Your task to perform on an android device: open app "Upside-Cash back on gas & food" (install if not already installed) and enter user name: "transatlantic@gmail.com" and password: "experiences" Image 0: 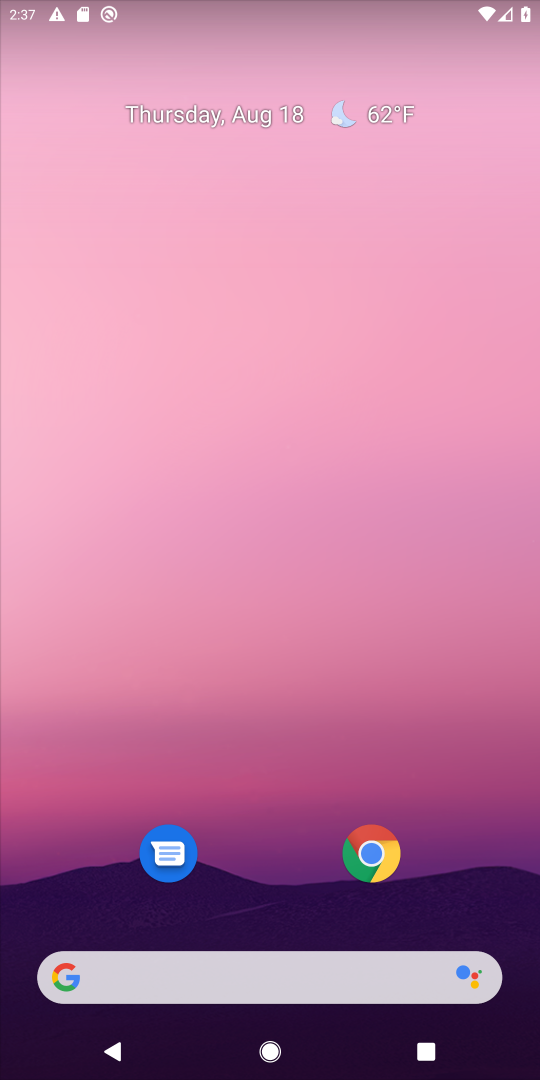
Step 0: drag from (456, 897) to (374, 71)
Your task to perform on an android device: open app "Upside-Cash back on gas & food" (install if not already installed) and enter user name: "transatlantic@gmail.com" and password: "experiences" Image 1: 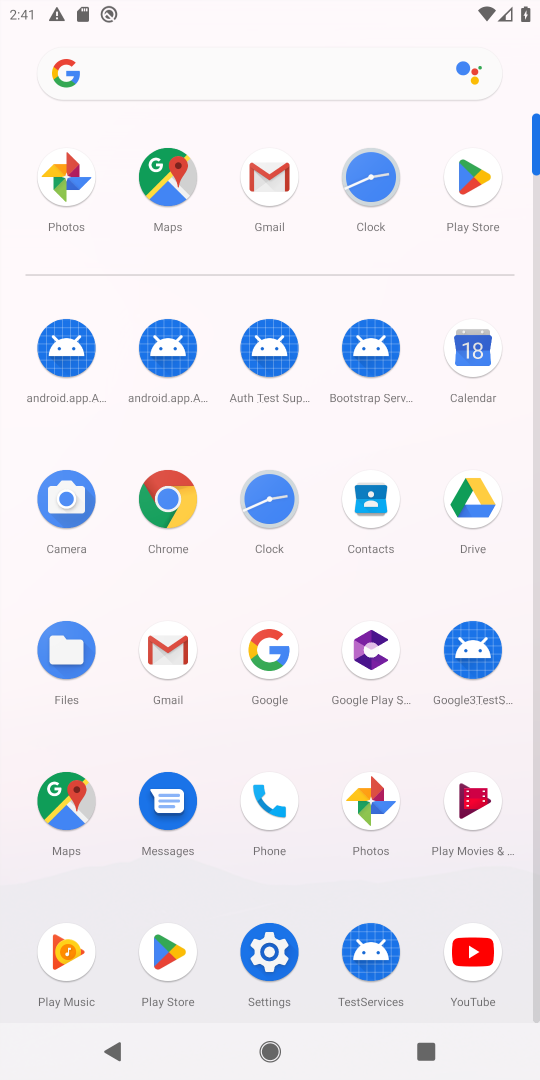
Step 1: click (473, 172)
Your task to perform on an android device: open app "Upside-Cash back on gas & food" (install if not already installed) and enter user name: "transatlantic@gmail.com" and password: "experiences" Image 2: 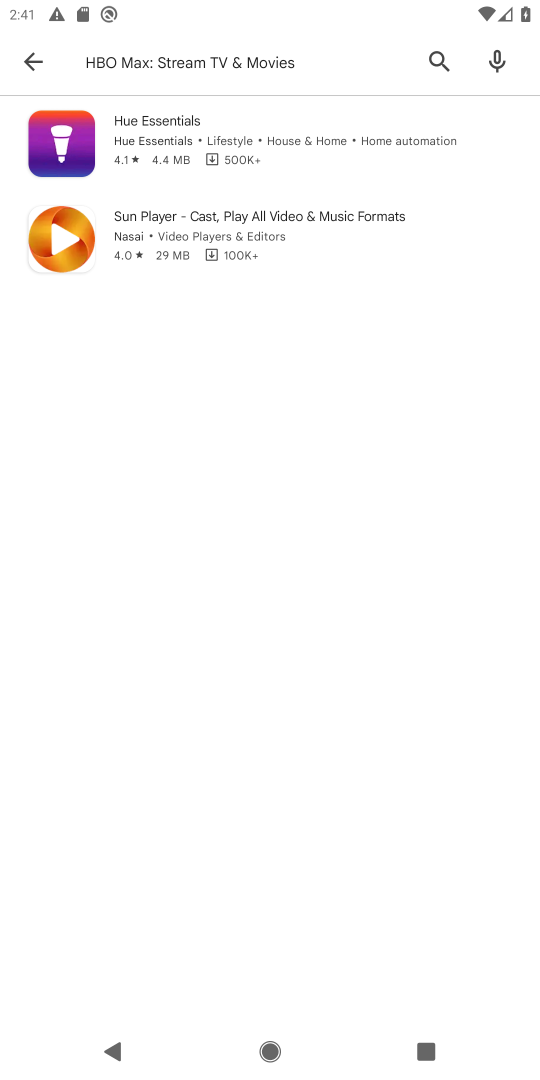
Step 2: press back button
Your task to perform on an android device: open app "Upside-Cash back on gas & food" (install if not already installed) and enter user name: "transatlantic@gmail.com" and password: "experiences" Image 3: 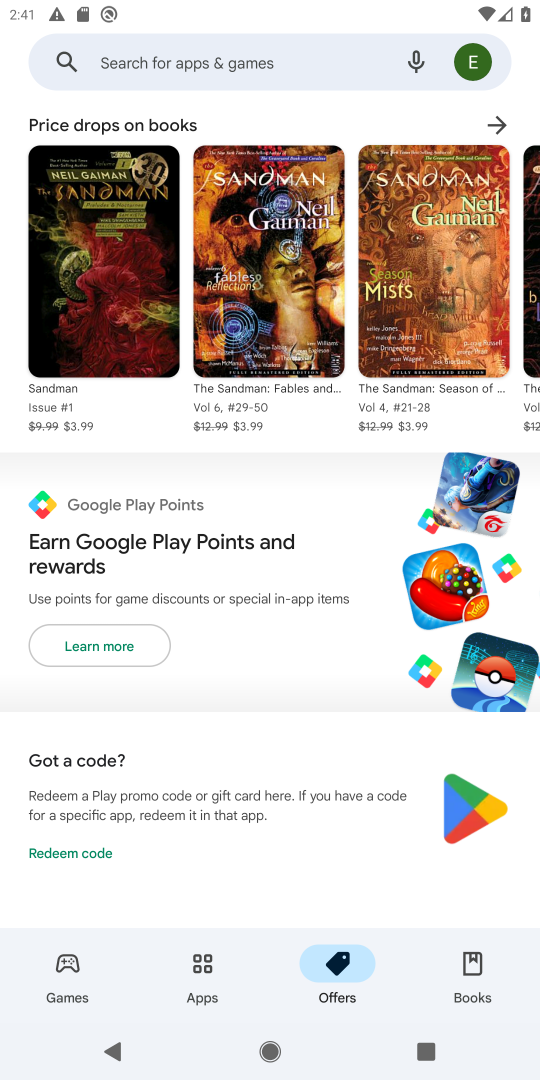
Step 3: click (160, 46)
Your task to perform on an android device: open app "Upside-Cash back on gas & food" (install if not already installed) and enter user name: "transatlantic@gmail.com" and password: "experiences" Image 4: 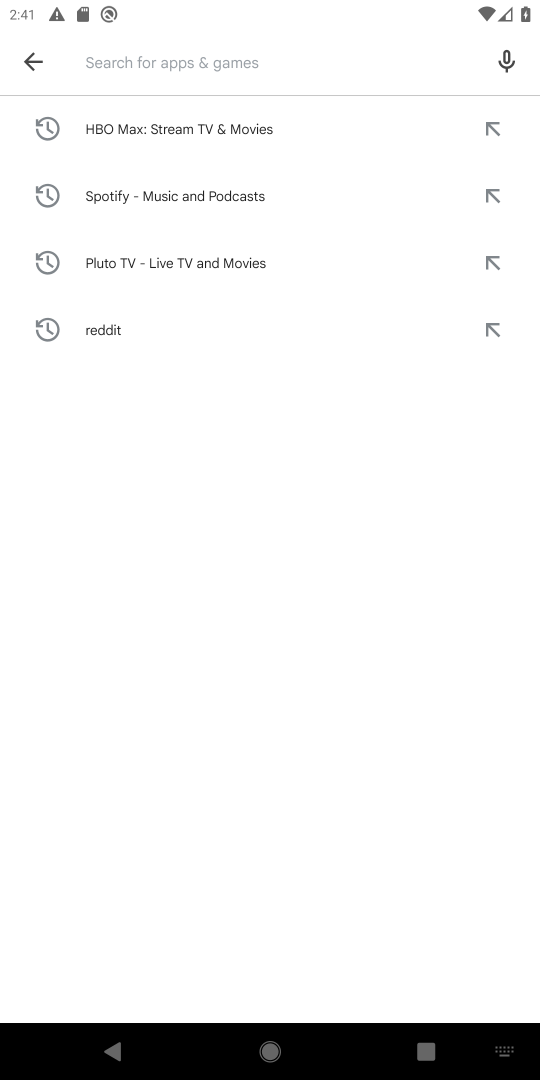
Step 4: type "Upside-Cash back on gas & food"
Your task to perform on an android device: open app "Upside-Cash back on gas & food" (install if not already installed) and enter user name: "transatlantic@gmail.com" and password: "experiences" Image 5: 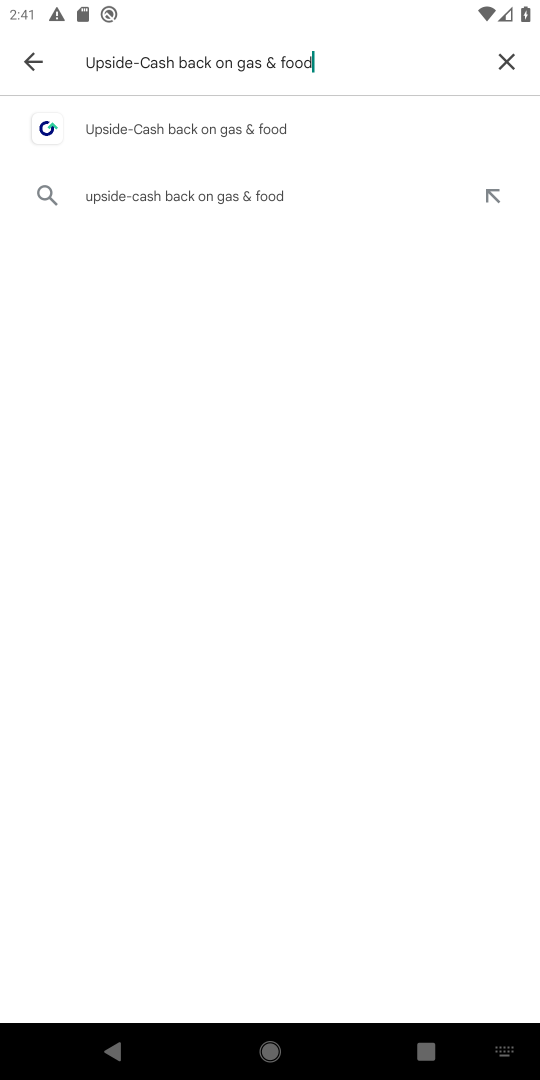
Step 5: click (147, 136)
Your task to perform on an android device: open app "Upside-Cash back on gas & food" (install if not already installed) and enter user name: "transatlantic@gmail.com" and password: "experiences" Image 6: 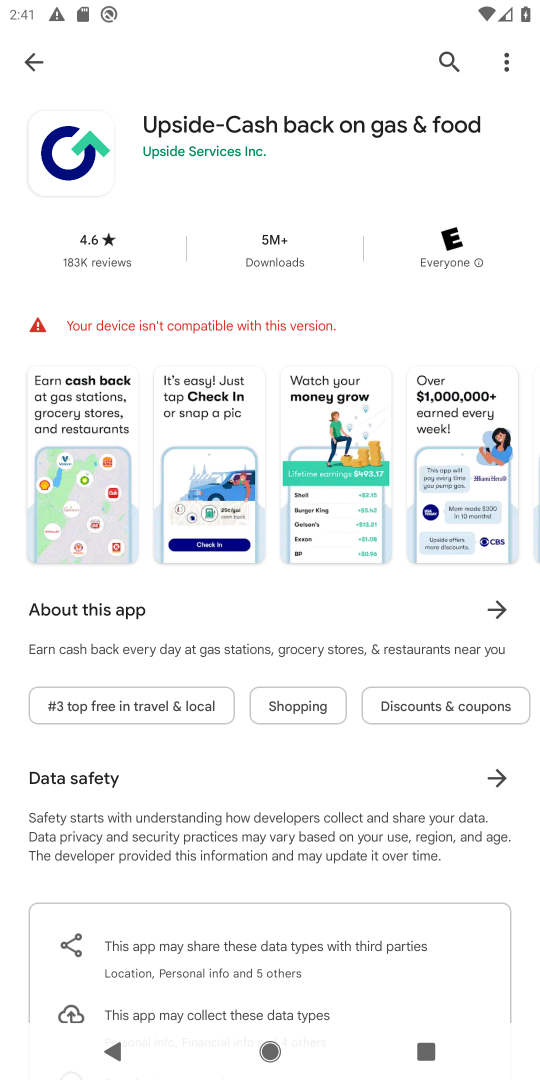
Step 6: task complete